Your task to perform on an android device: Go to Wikipedia Image 0: 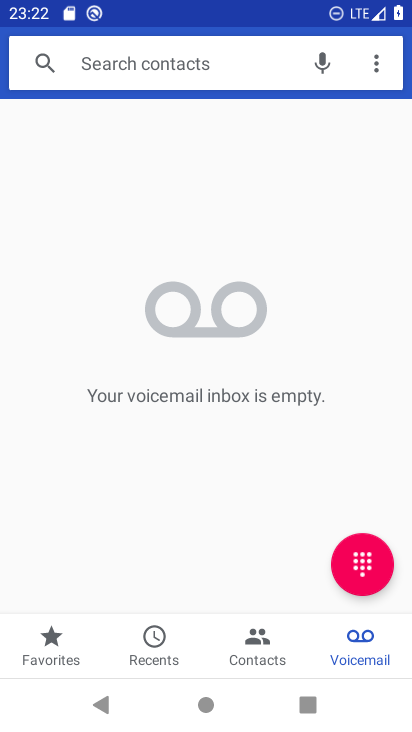
Step 0: press home button
Your task to perform on an android device: Go to Wikipedia Image 1: 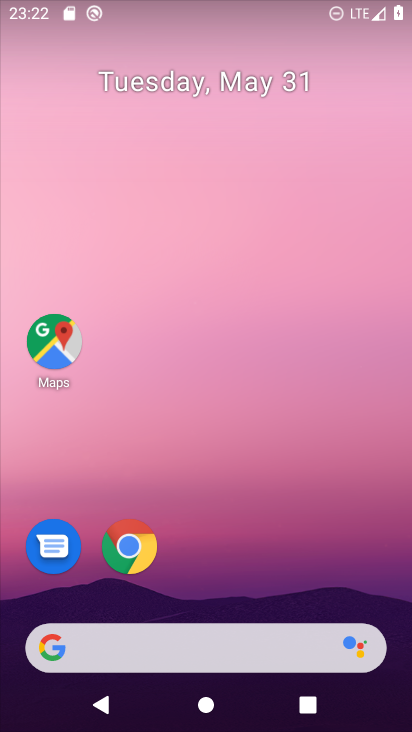
Step 1: drag from (404, 690) to (350, 111)
Your task to perform on an android device: Go to Wikipedia Image 2: 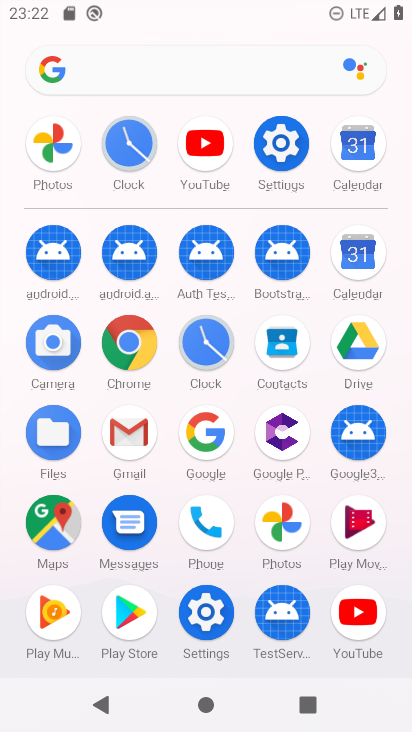
Step 2: click (125, 356)
Your task to perform on an android device: Go to Wikipedia Image 3: 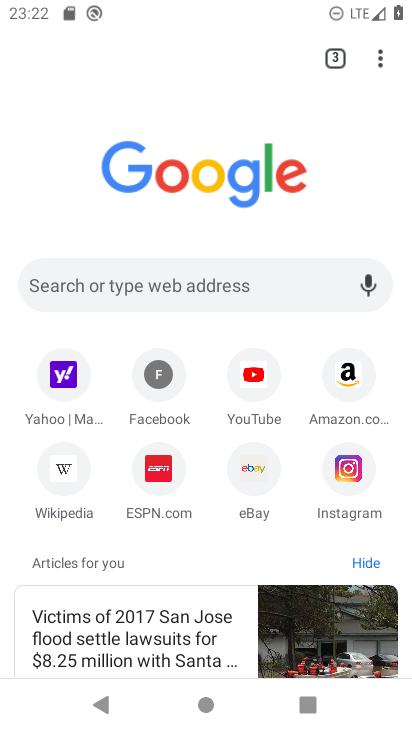
Step 3: click (196, 283)
Your task to perform on an android device: Go to Wikipedia Image 4: 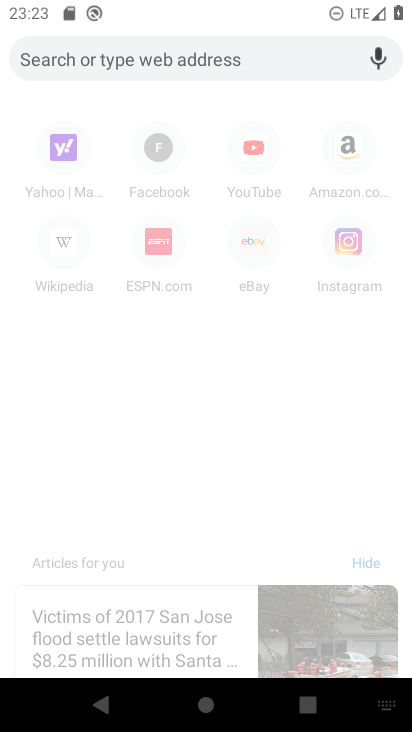
Step 4: type "Wikipedia"
Your task to perform on an android device: Go to Wikipedia Image 5: 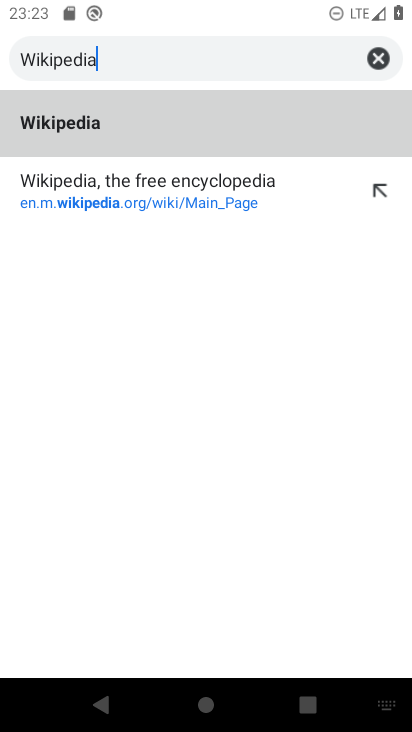
Step 5: click (87, 124)
Your task to perform on an android device: Go to Wikipedia Image 6: 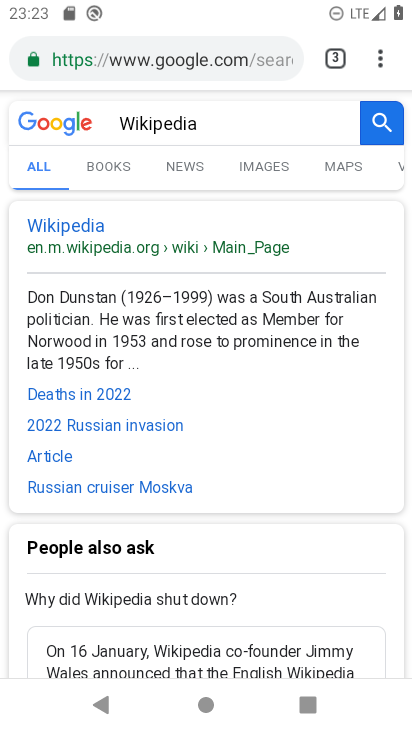
Step 6: task complete